Your task to perform on an android device: move an email to a new category in the gmail app Image 0: 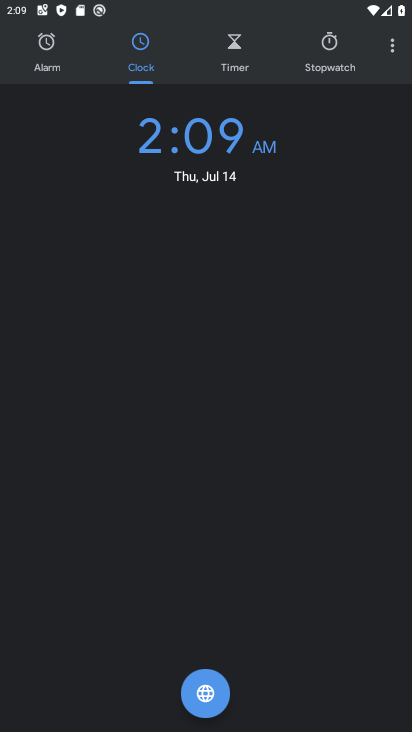
Step 0: press home button
Your task to perform on an android device: move an email to a new category in the gmail app Image 1: 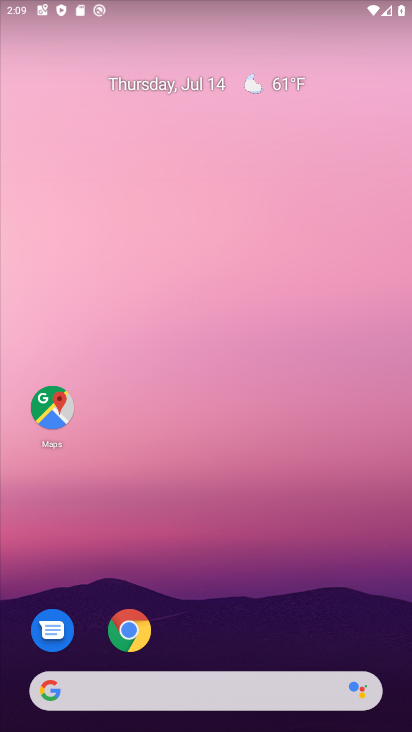
Step 1: drag from (150, 695) to (309, 254)
Your task to perform on an android device: move an email to a new category in the gmail app Image 2: 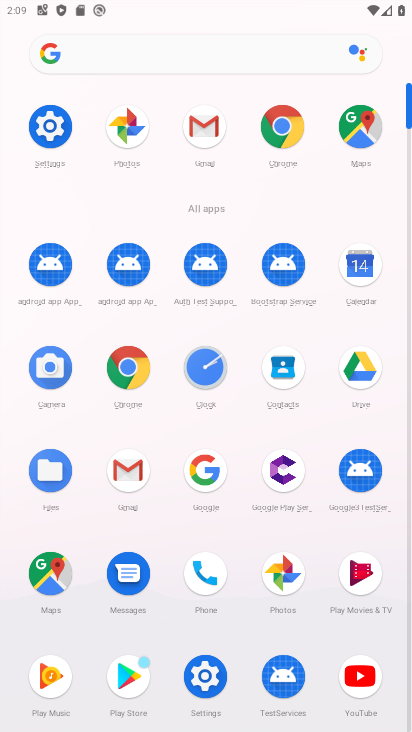
Step 2: click (208, 137)
Your task to perform on an android device: move an email to a new category in the gmail app Image 3: 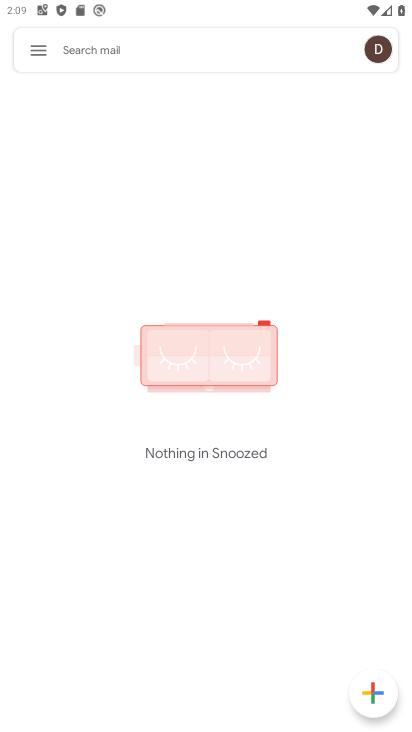
Step 3: click (41, 46)
Your task to perform on an android device: move an email to a new category in the gmail app Image 4: 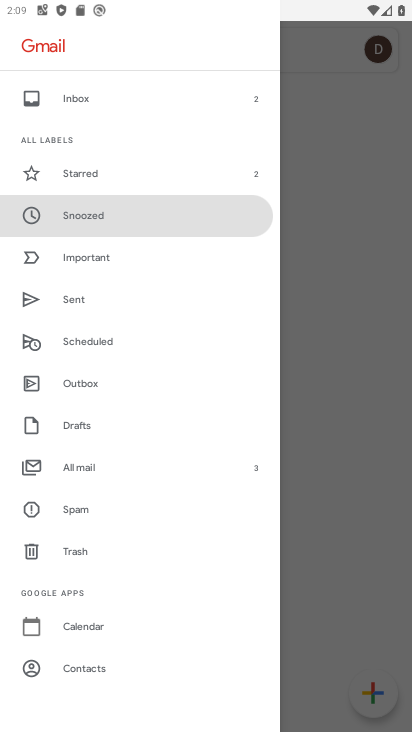
Step 4: click (100, 464)
Your task to perform on an android device: move an email to a new category in the gmail app Image 5: 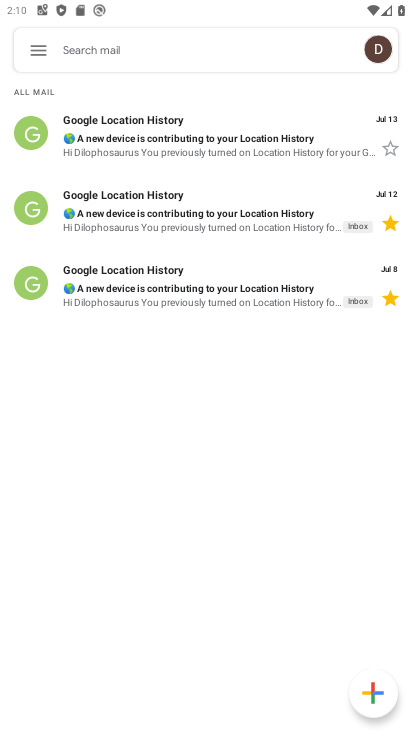
Step 5: click (34, 129)
Your task to perform on an android device: move an email to a new category in the gmail app Image 6: 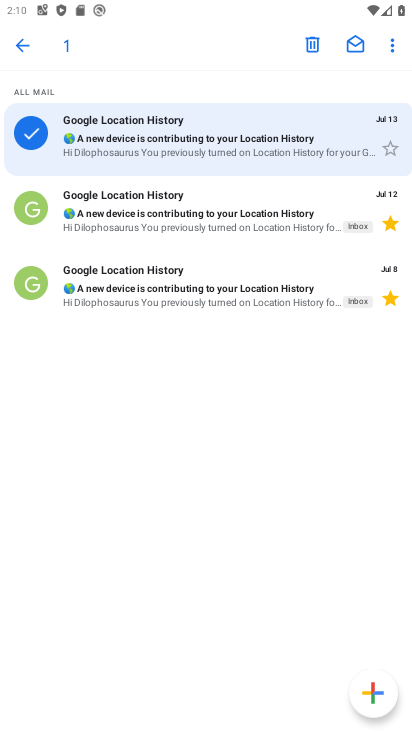
Step 6: click (391, 46)
Your task to perform on an android device: move an email to a new category in the gmail app Image 7: 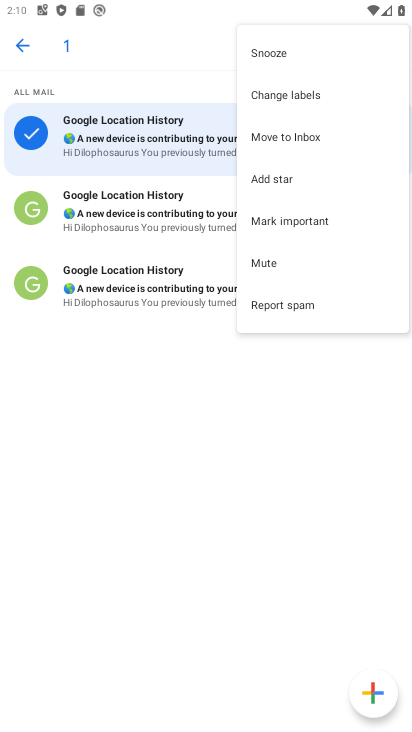
Step 7: click (299, 132)
Your task to perform on an android device: move an email to a new category in the gmail app Image 8: 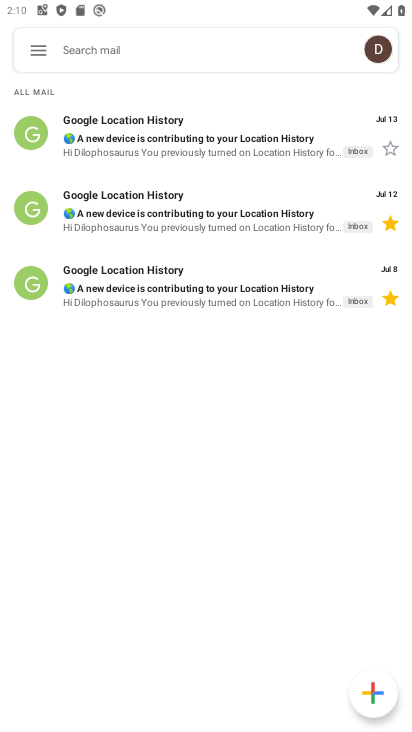
Step 8: task complete